Your task to perform on an android device: snooze an email in the gmail app Image 0: 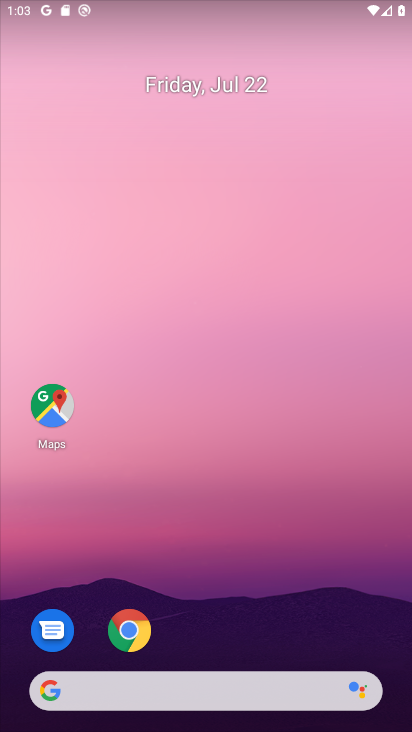
Step 0: drag from (223, 554) to (248, 46)
Your task to perform on an android device: snooze an email in the gmail app Image 1: 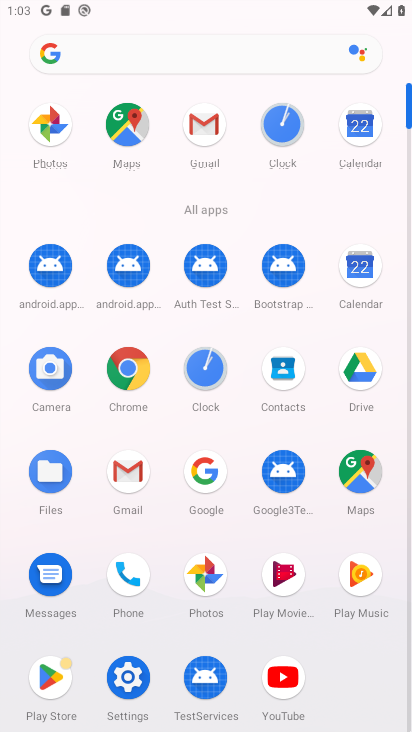
Step 1: click (195, 132)
Your task to perform on an android device: snooze an email in the gmail app Image 2: 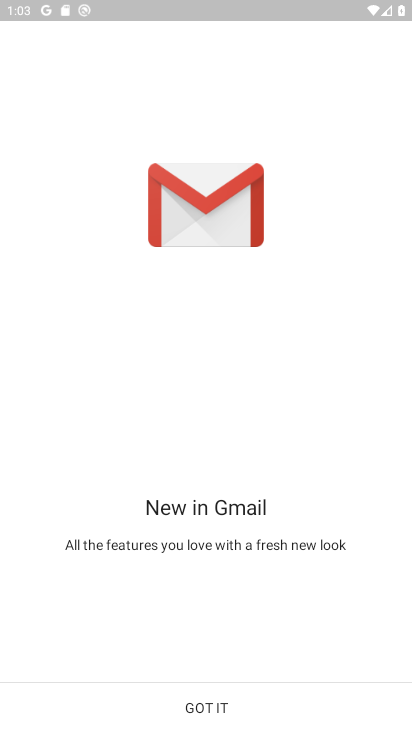
Step 2: click (216, 722)
Your task to perform on an android device: snooze an email in the gmail app Image 3: 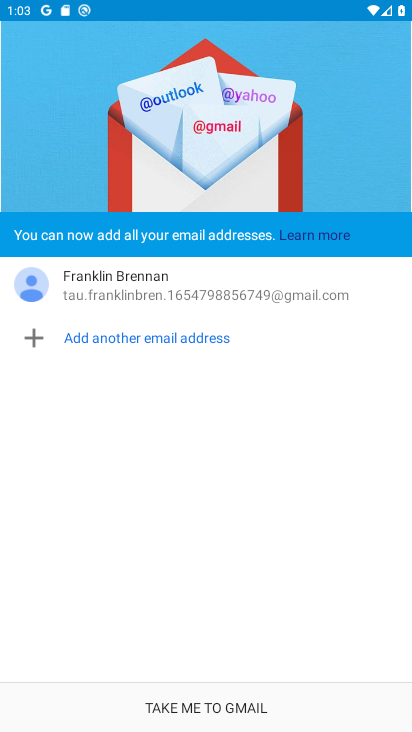
Step 3: click (208, 705)
Your task to perform on an android device: snooze an email in the gmail app Image 4: 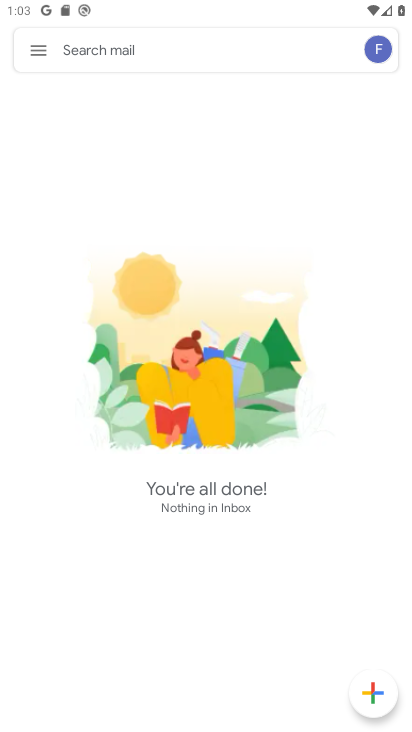
Step 4: click (33, 47)
Your task to perform on an android device: snooze an email in the gmail app Image 5: 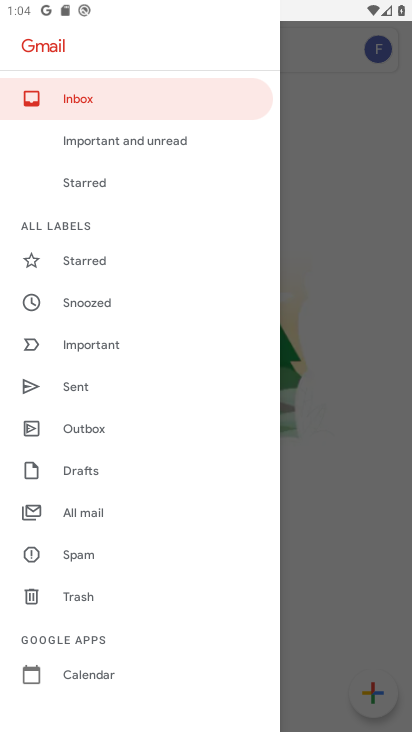
Step 5: click (85, 504)
Your task to perform on an android device: snooze an email in the gmail app Image 6: 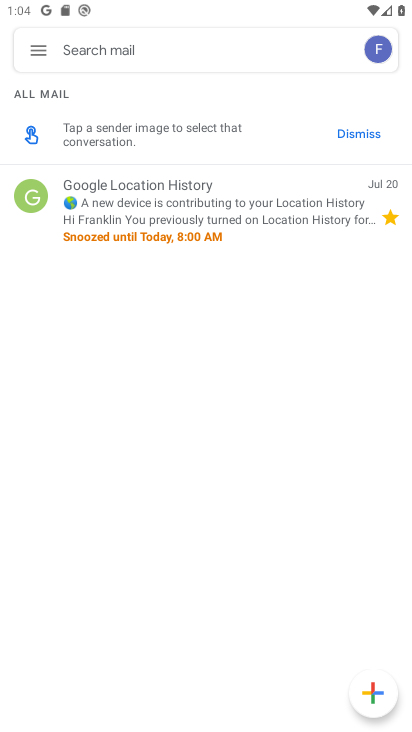
Step 6: click (169, 206)
Your task to perform on an android device: snooze an email in the gmail app Image 7: 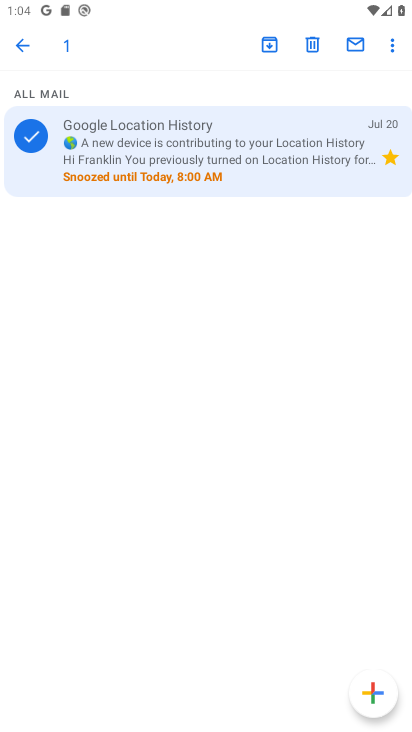
Step 7: task complete